Your task to perform on an android device: move a message to another label in the gmail app Image 0: 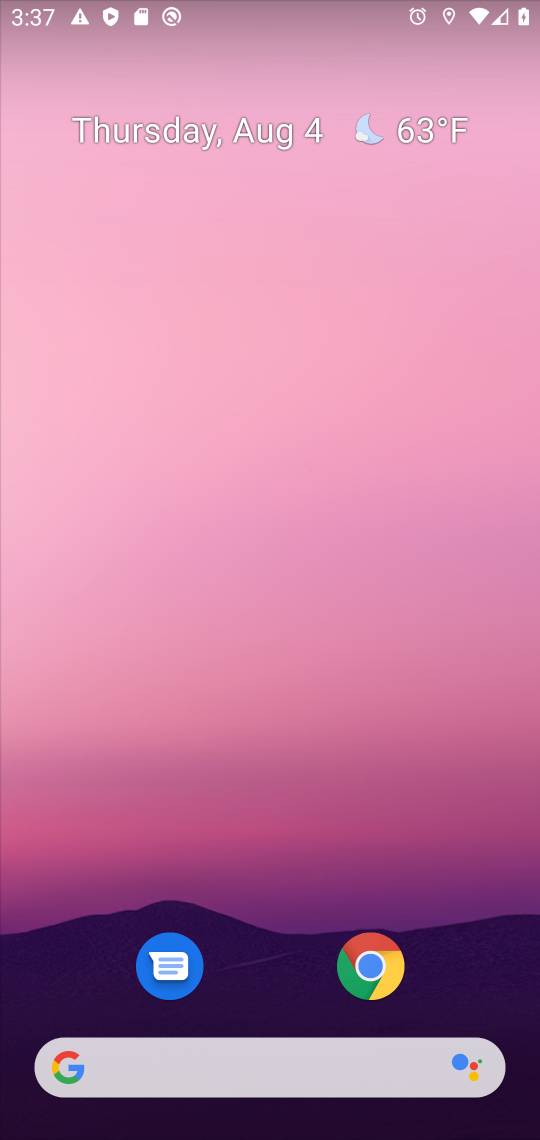
Step 0: drag from (311, 755) to (347, 163)
Your task to perform on an android device: move a message to another label in the gmail app Image 1: 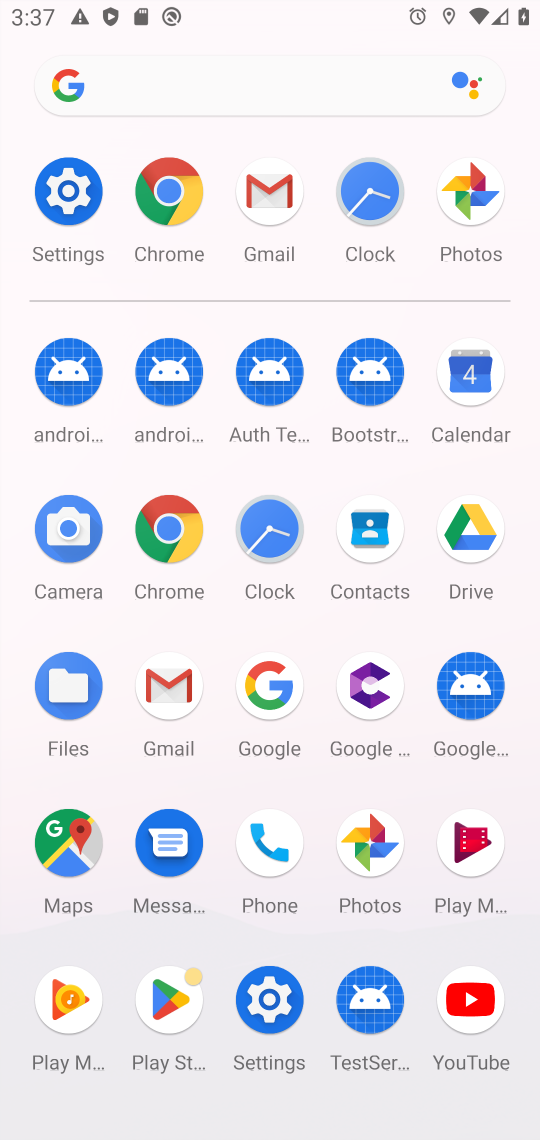
Step 1: click (267, 206)
Your task to perform on an android device: move a message to another label in the gmail app Image 2: 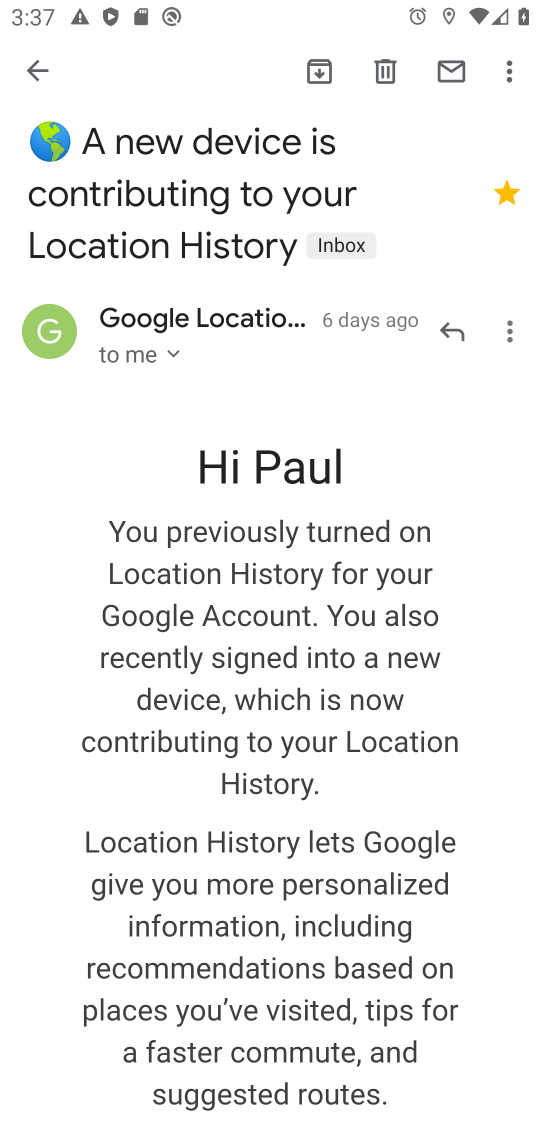
Step 2: click (40, 72)
Your task to perform on an android device: move a message to another label in the gmail app Image 3: 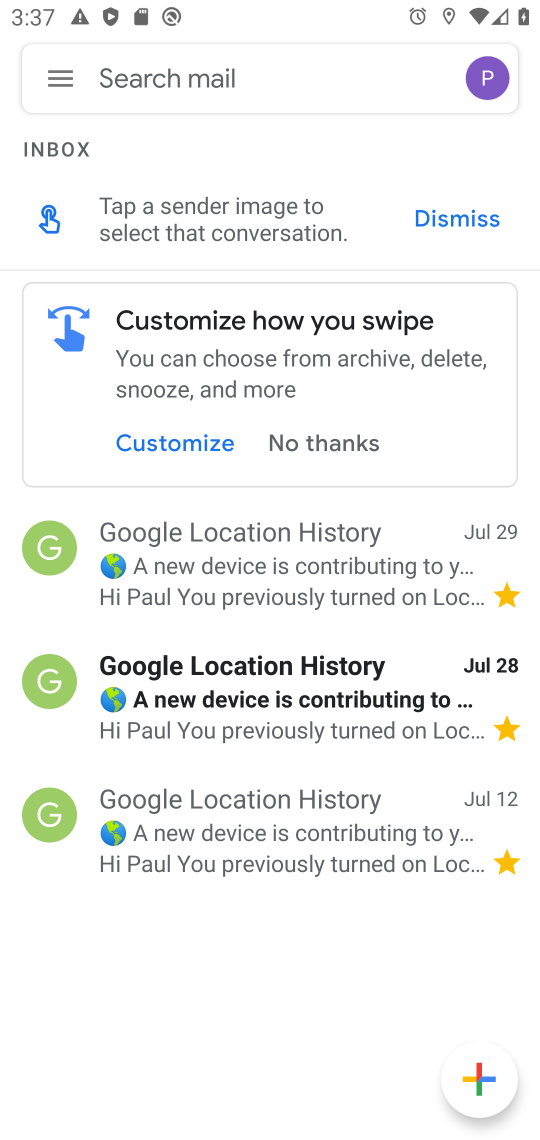
Step 3: click (267, 578)
Your task to perform on an android device: move a message to another label in the gmail app Image 4: 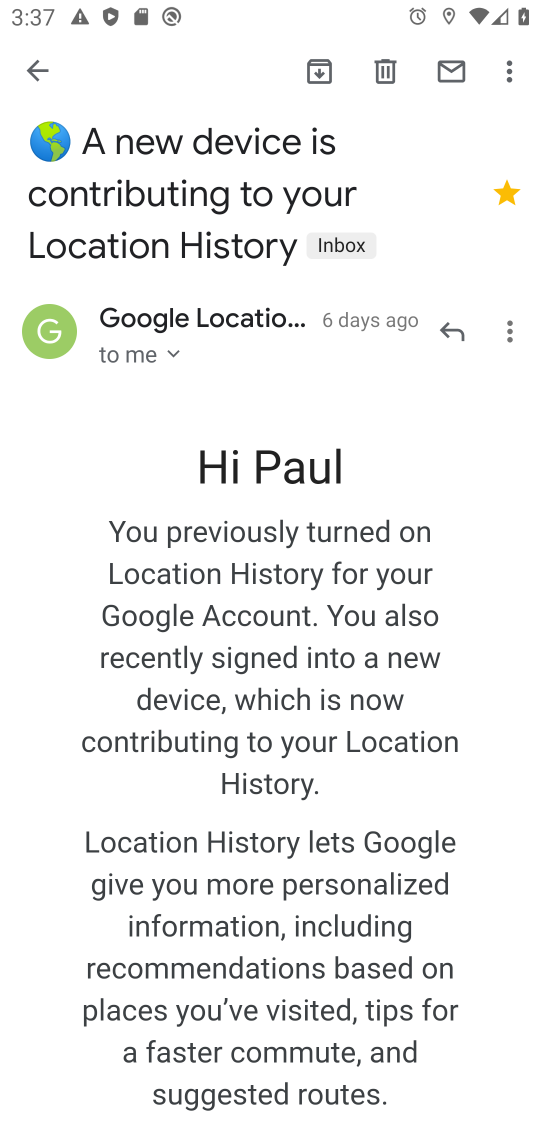
Step 4: click (503, 72)
Your task to perform on an android device: move a message to another label in the gmail app Image 5: 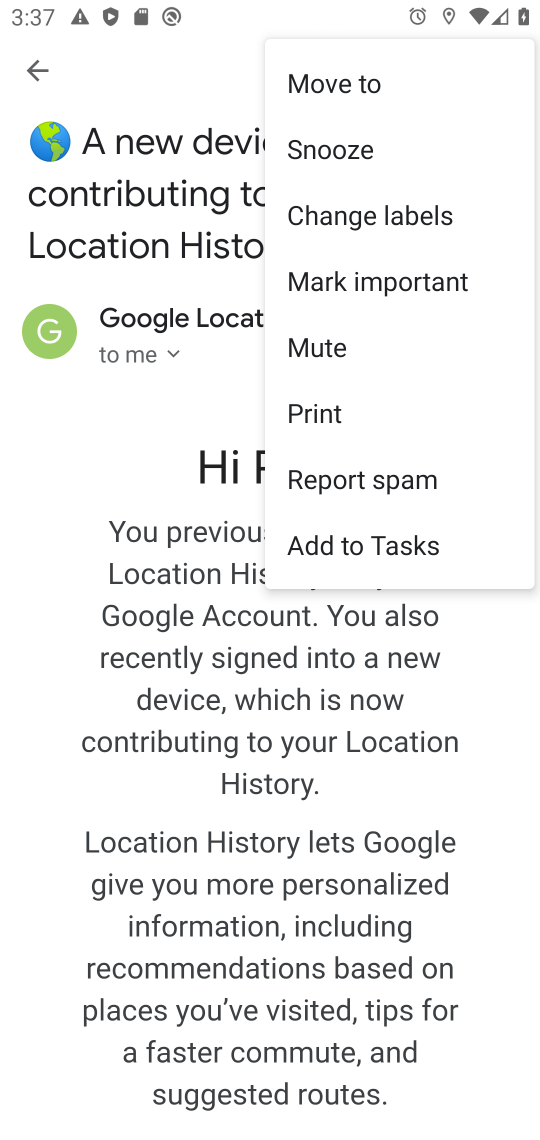
Step 5: click (372, 232)
Your task to perform on an android device: move a message to another label in the gmail app Image 6: 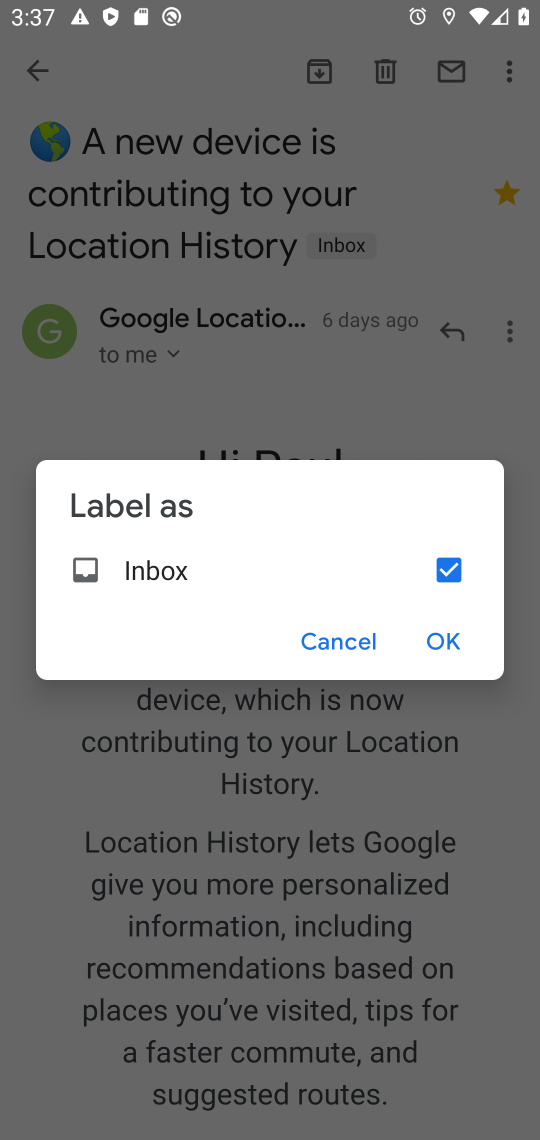
Step 6: click (451, 647)
Your task to perform on an android device: move a message to another label in the gmail app Image 7: 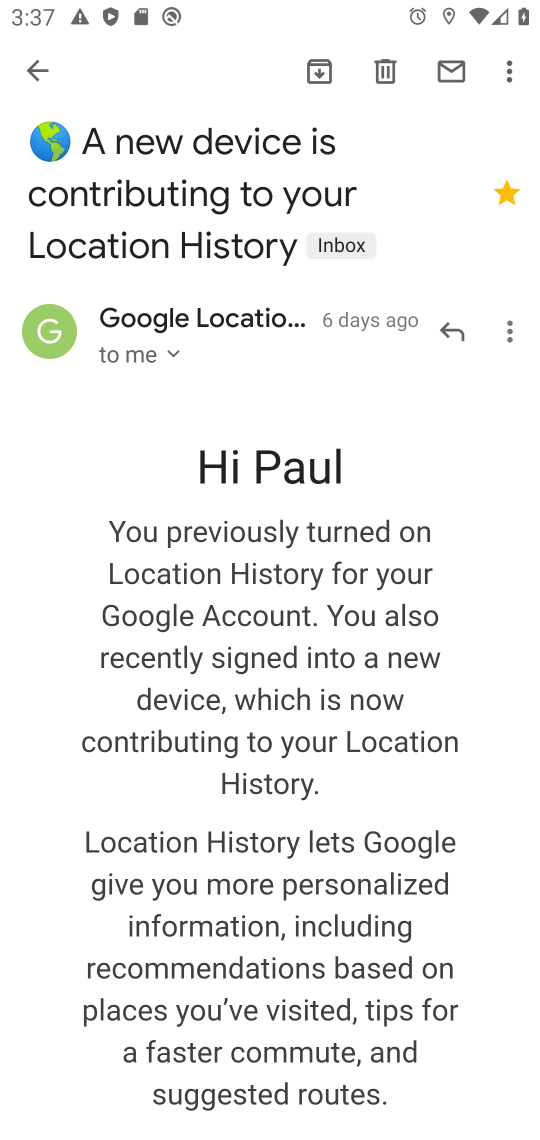
Step 7: task complete